Your task to perform on an android device: Open Google Image 0: 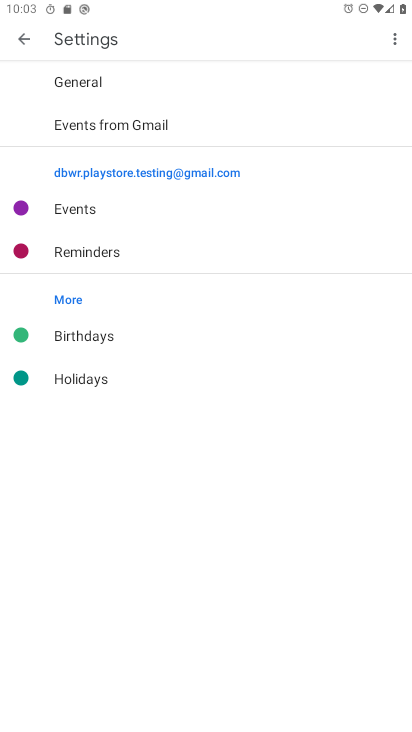
Step 0: press home button
Your task to perform on an android device: Open Google Image 1: 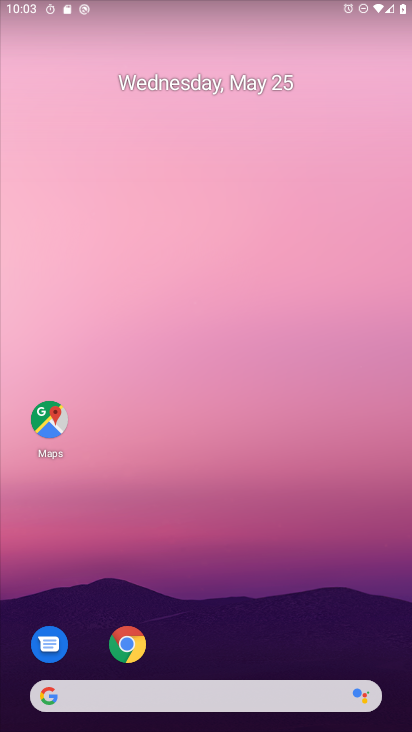
Step 1: drag from (336, 636) to (328, 159)
Your task to perform on an android device: Open Google Image 2: 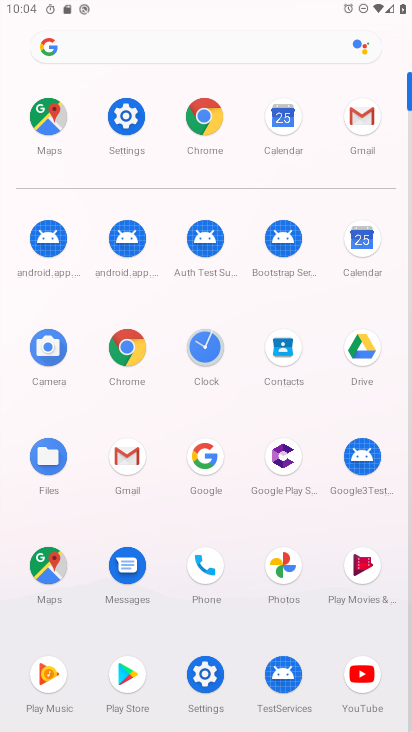
Step 2: click (201, 458)
Your task to perform on an android device: Open Google Image 3: 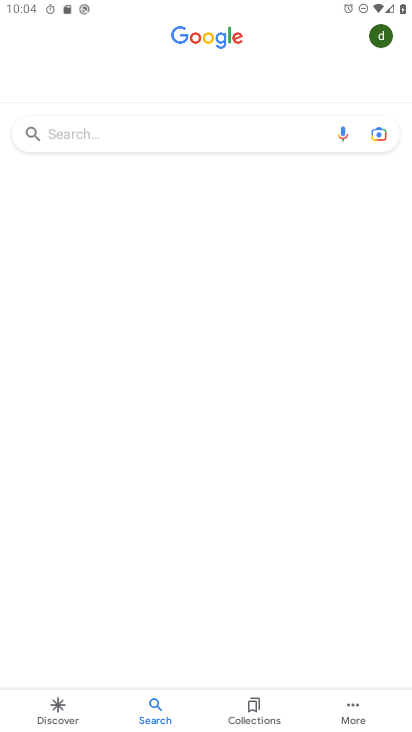
Step 3: task complete